Your task to perform on an android device: Open Google Image 0: 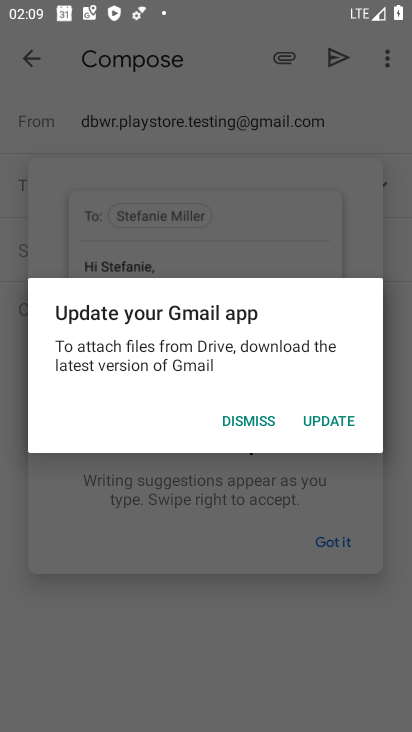
Step 0: press home button
Your task to perform on an android device: Open Google Image 1: 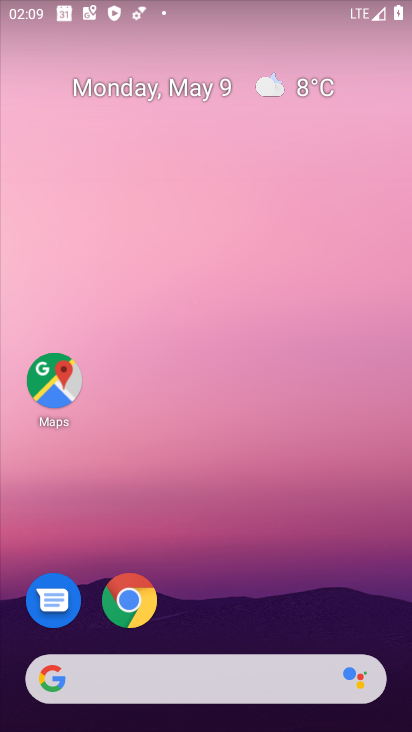
Step 1: drag from (212, 626) to (206, 191)
Your task to perform on an android device: Open Google Image 2: 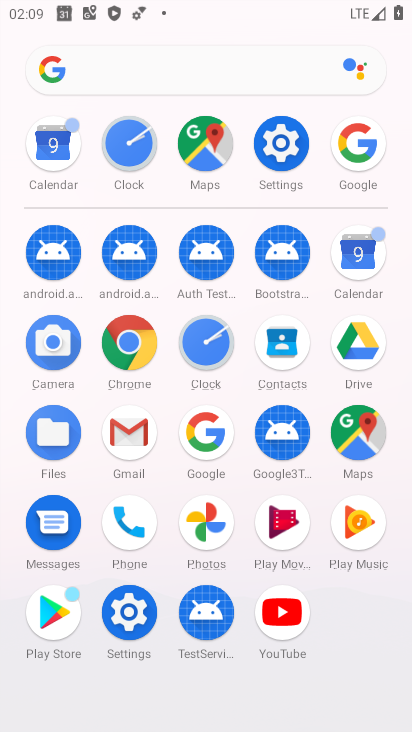
Step 2: click (209, 432)
Your task to perform on an android device: Open Google Image 3: 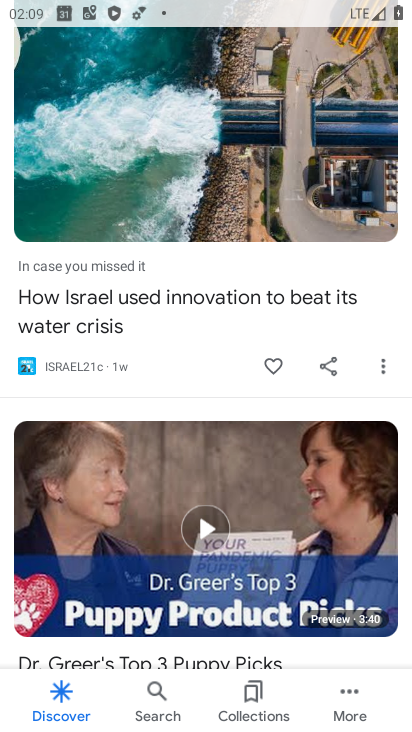
Step 3: task complete